Your task to perform on an android device: open chrome privacy settings Image 0: 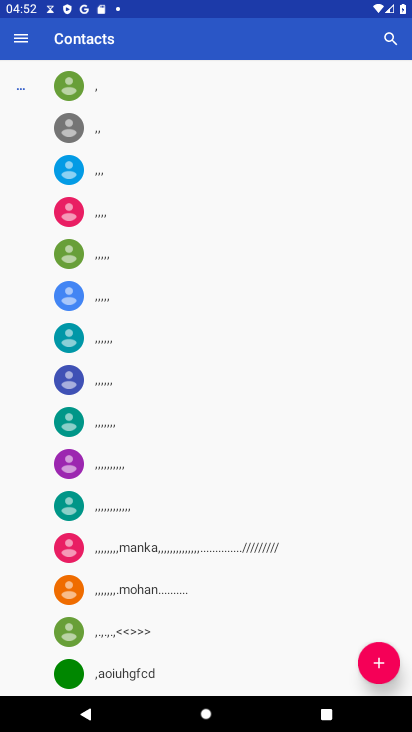
Step 0: press home button
Your task to perform on an android device: open chrome privacy settings Image 1: 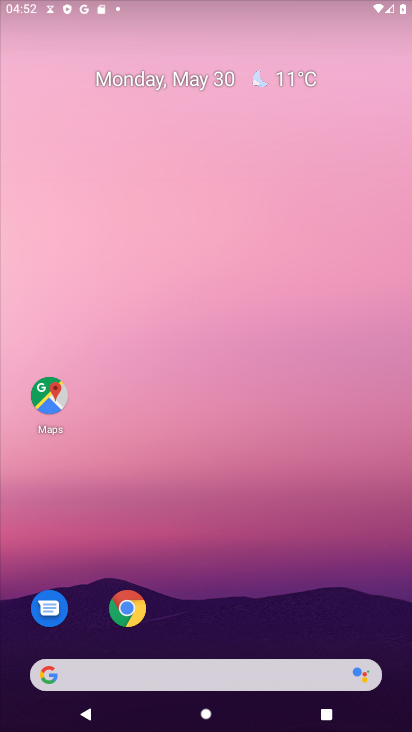
Step 1: drag from (178, 284) to (178, 90)
Your task to perform on an android device: open chrome privacy settings Image 2: 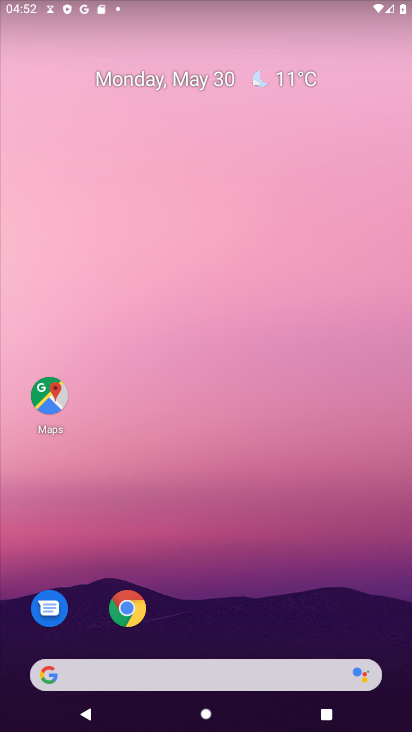
Step 2: drag from (198, 648) to (189, 228)
Your task to perform on an android device: open chrome privacy settings Image 3: 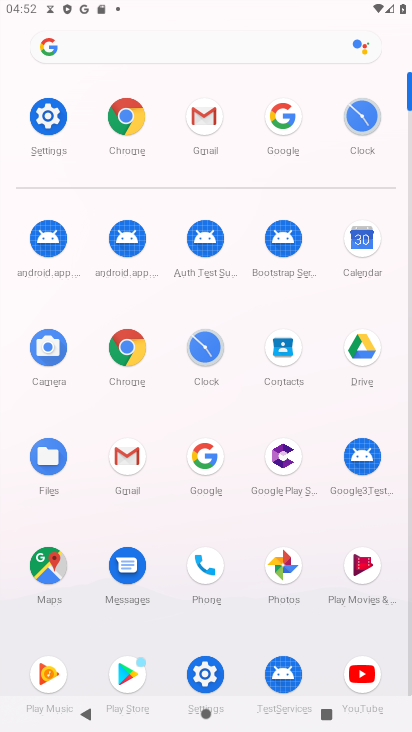
Step 3: click (42, 121)
Your task to perform on an android device: open chrome privacy settings Image 4: 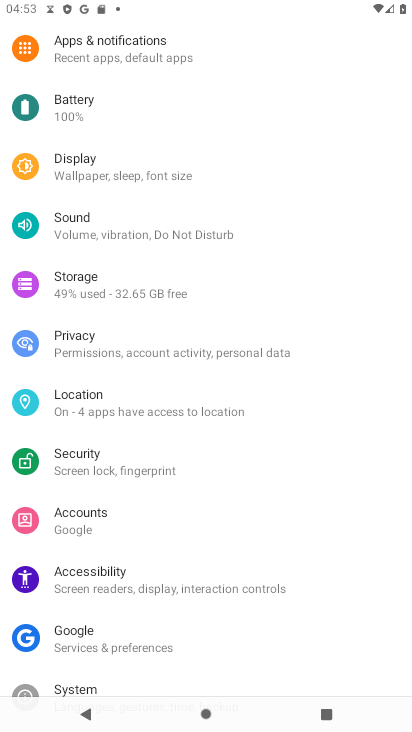
Step 4: click (117, 352)
Your task to perform on an android device: open chrome privacy settings Image 5: 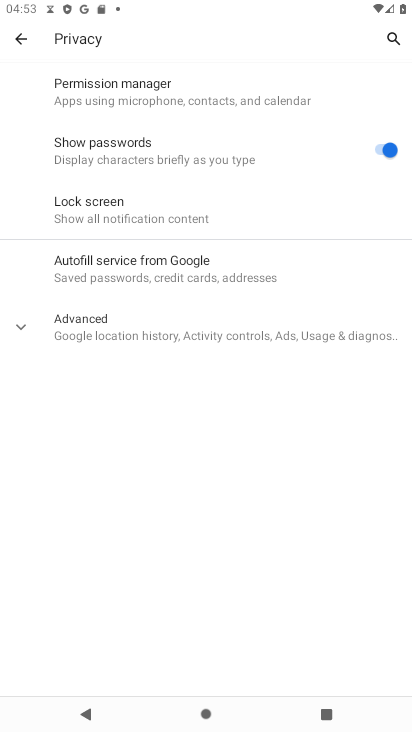
Step 5: click (109, 325)
Your task to perform on an android device: open chrome privacy settings Image 6: 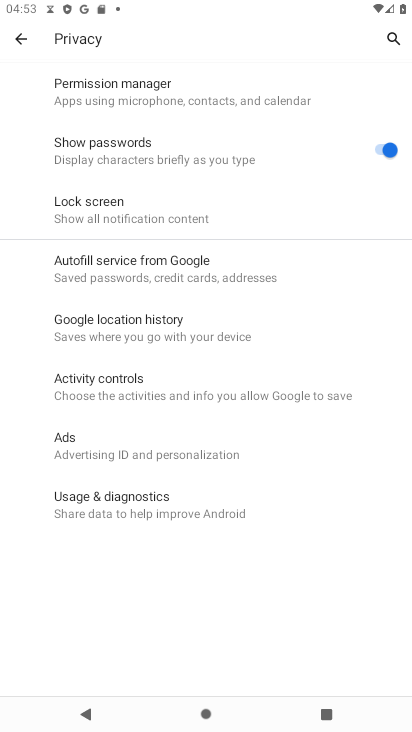
Step 6: task complete